Your task to perform on an android device: Is it going to rain today? Image 0: 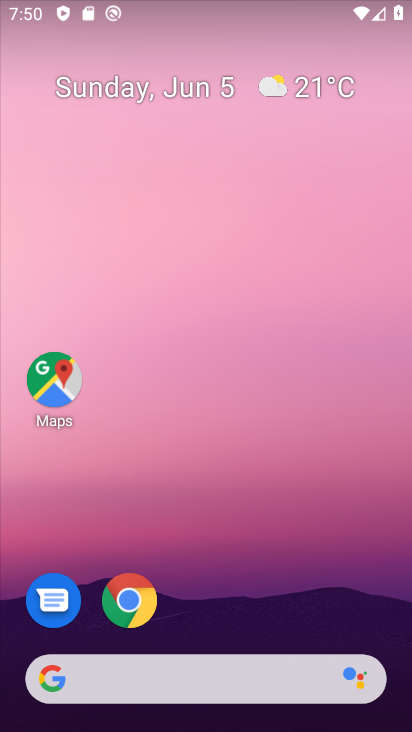
Step 0: click (218, 678)
Your task to perform on an android device: Is it going to rain today? Image 1: 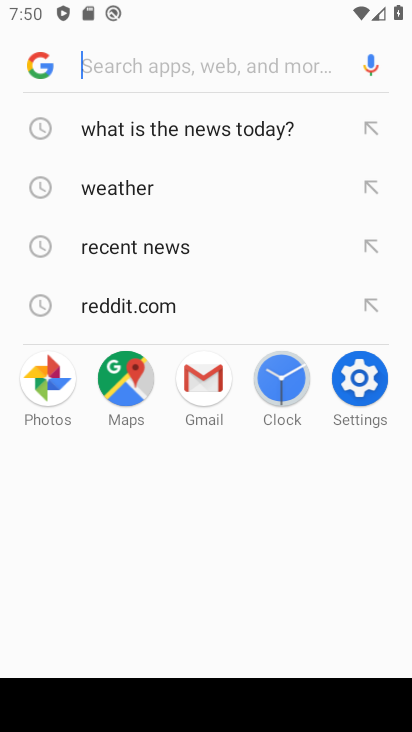
Step 1: type "is it goinng to rain today"
Your task to perform on an android device: Is it going to rain today? Image 2: 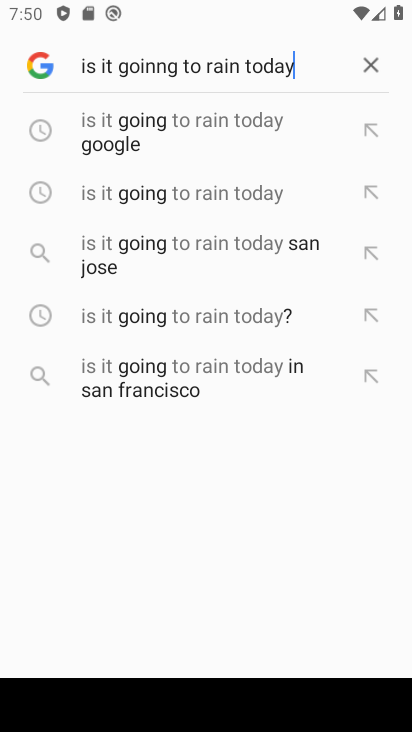
Step 2: click (175, 192)
Your task to perform on an android device: Is it going to rain today? Image 3: 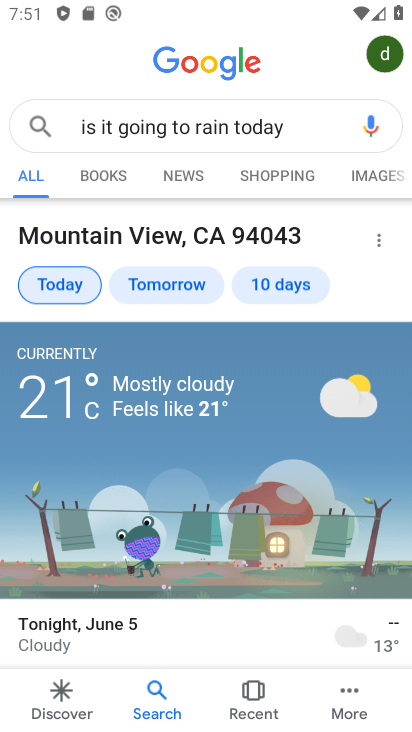
Step 3: task complete